Your task to perform on an android device: move a message to another label in the gmail app Image 0: 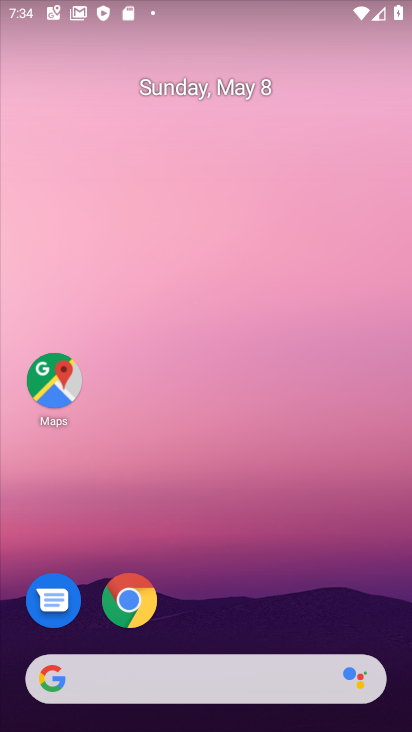
Step 0: drag from (295, 717) to (191, 308)
Your task to perform on an android device: move a message to another label in the gmail app Image 1: 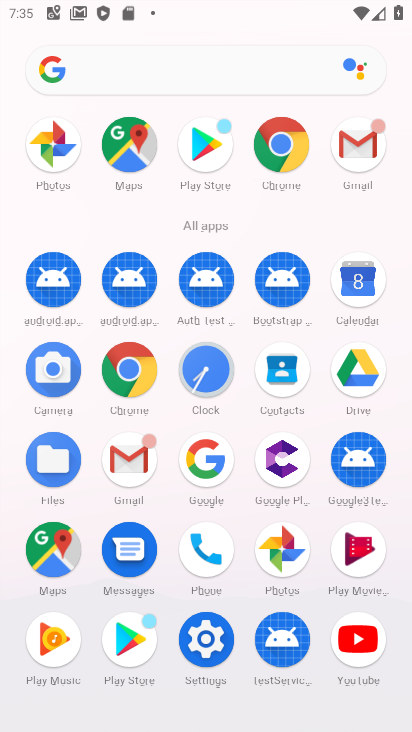
Step 1: click (352, 152)
Your task to perform on an android device: move a message to another label in the gmail app Image 2: 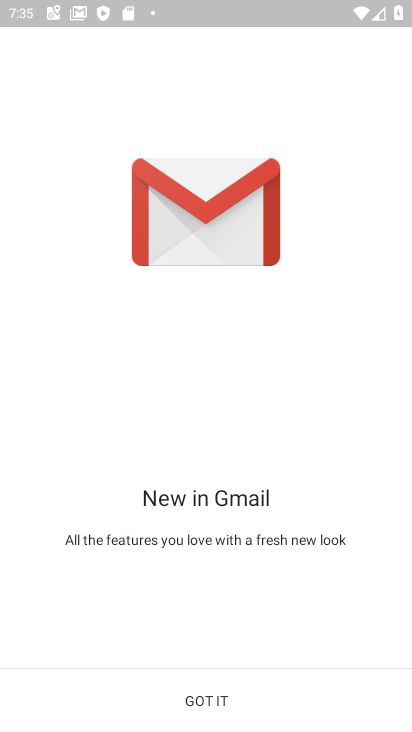
Step 2: click (224, 699)
Your task to perform on an android device: move a message to another label in the gmail app Image 3: 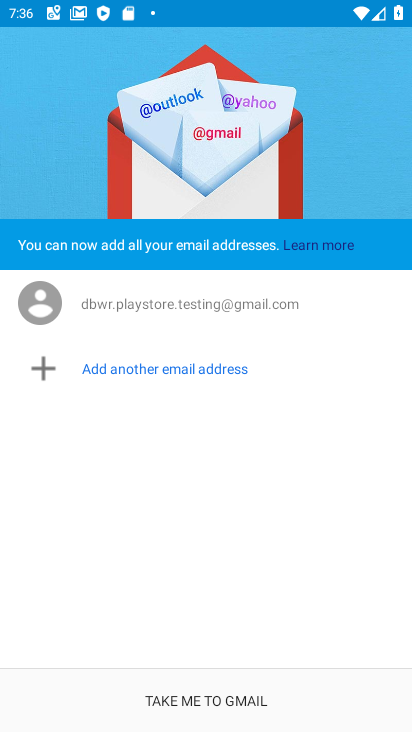
Step 3: click (214, 694)
Your task to perform on an android device: move a message to another label in the gmail app Image 4: 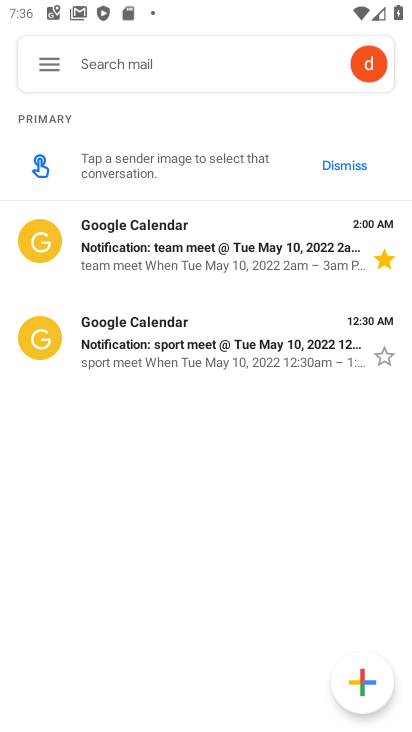
Step 4: click (37, 79)
Your task to perform on an android device: move a message to another label in the gmail app Image 5: 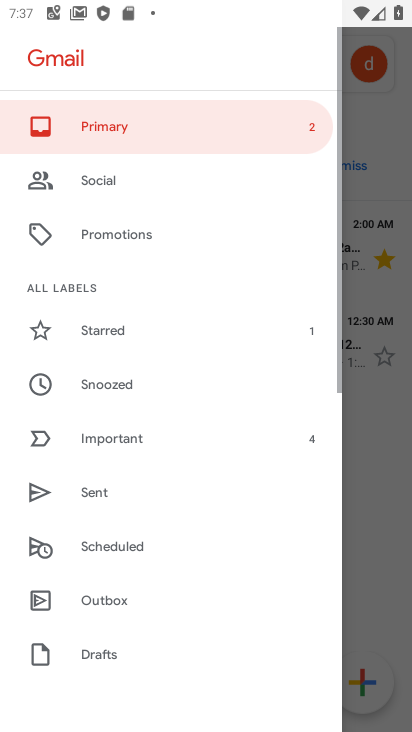
Step 5: drag from (140, 619) to (210, 441)
Your task to perform on an android device: move a message to another label in the gmail app Image 6: 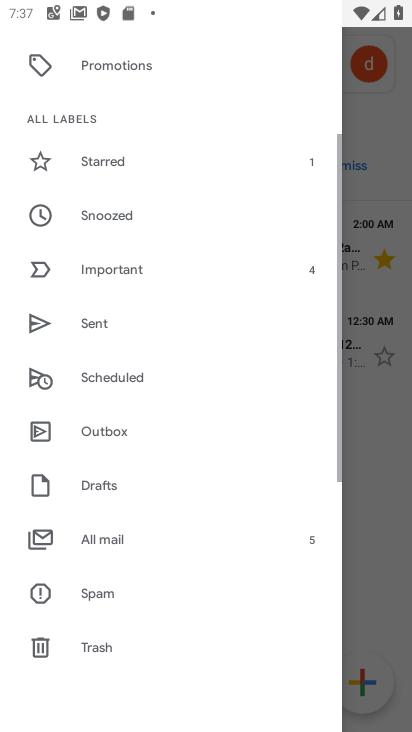
Step 6: drag from (121, 617) to (124, 486)
Your task to perform on an android device: move a message to another label in the gmail app Image 7: 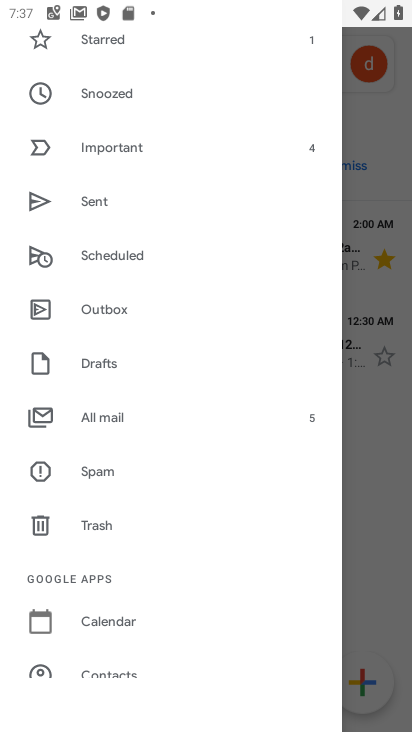
Step 7: drag from (134, 622) to (173, 501)
Your task to perform on an android device: move a message to another label in the gmail app Image 8: 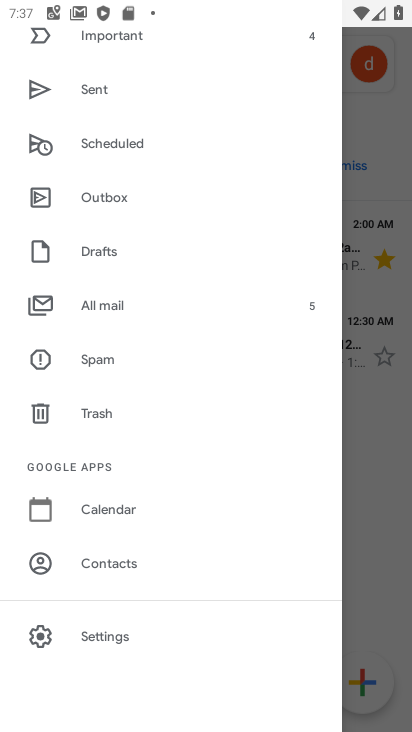
Step 8: click (125, 635)
Your task to perform on an android device: move a message to another label in the gmail app Image 9: 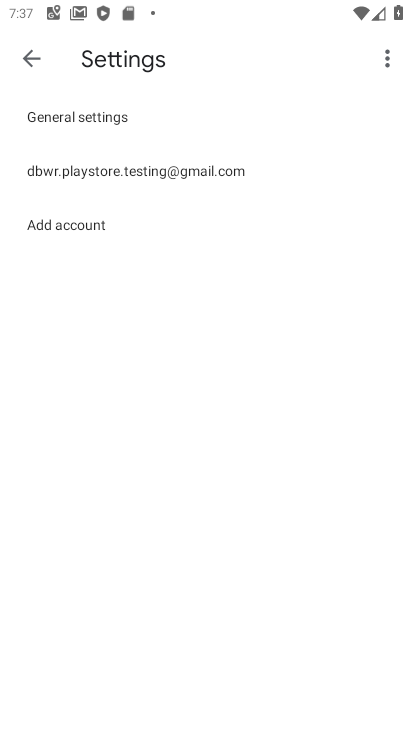
Step 9: click (134, 172)
Your task to perform on an android device: move a message to another label in the gmail app Image 10: 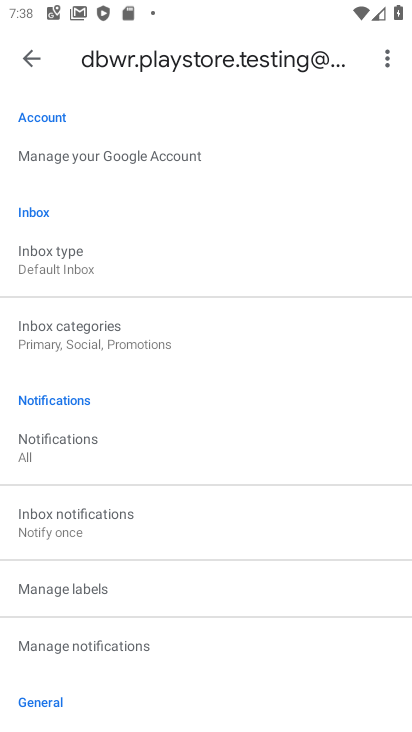
Step 10: click (131, 597)
Your task to perform on an android device: move a message to another label in the gmail app Image 11: 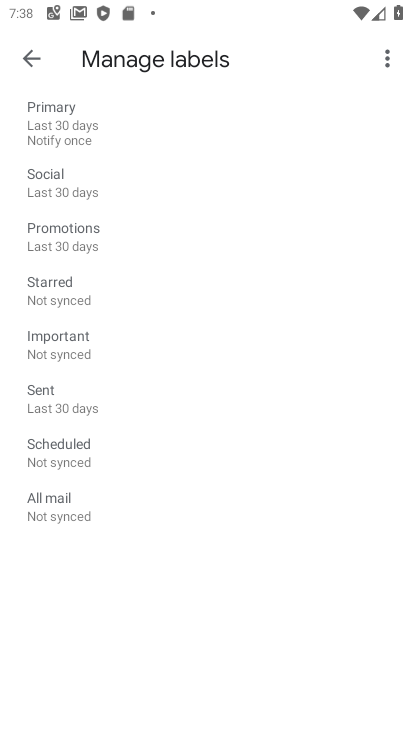
Step 11: click (112, 290)
Your task to perform on an android device: move a message to another label in the gmail app Image 12: 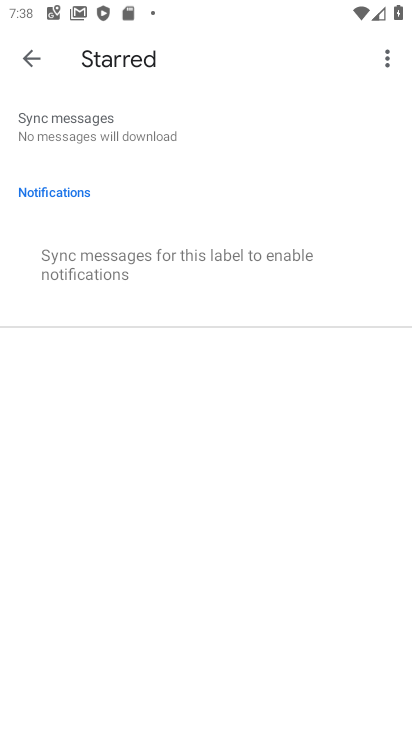
Step 12: task complete